Your task to perform on an android device: Open eBay Image 0: 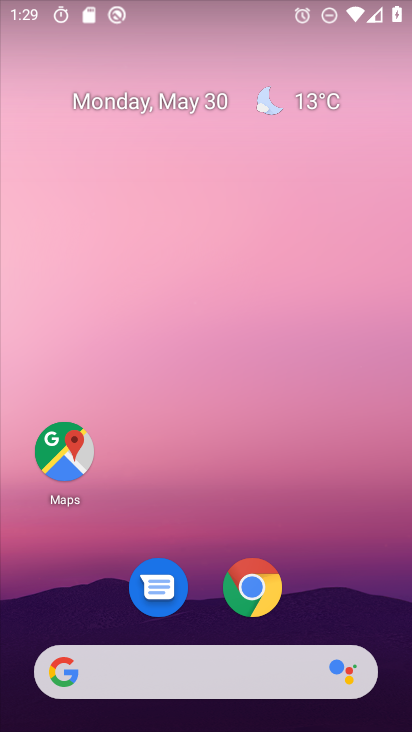
Step 0: drag from (344, 580) to (326, 106)
Your task to perform on an android device: Open eBay Image 1: 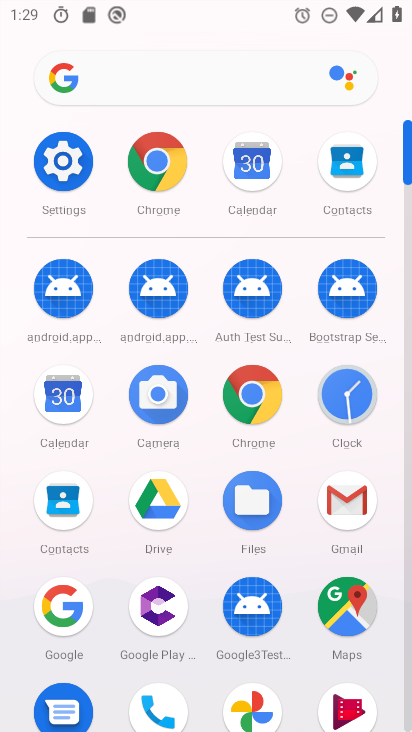
Step 1: click (150, 159)
Your task to perform on an android device: Open eBay Image 2: 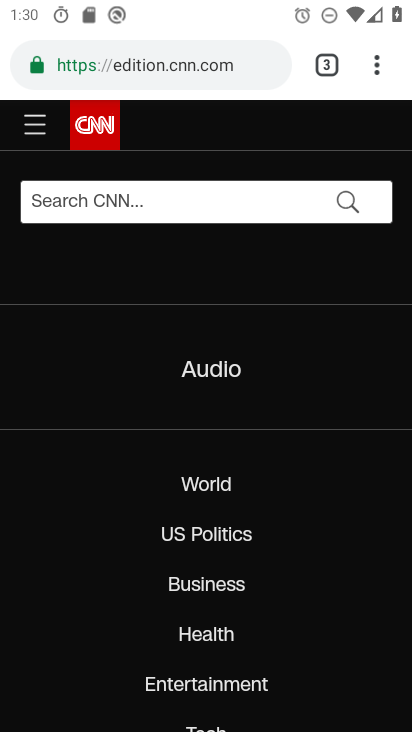
Step 2: click (157, 64)
Your task to perform on an android device: Open eBay Image 3: 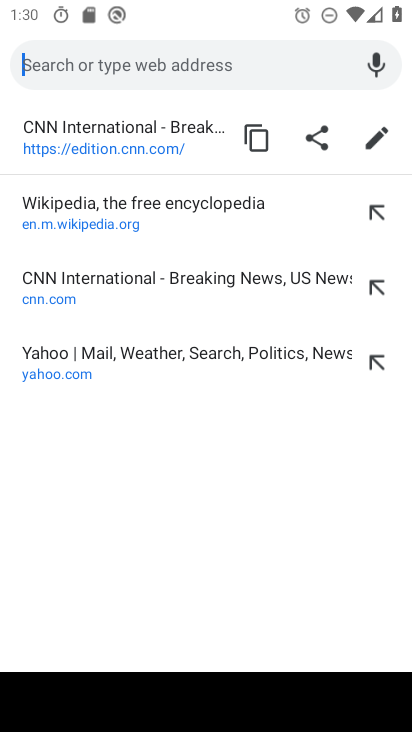
Step 3: type "ebay"
Your task to perform on an android device: Open eBay Image 4: 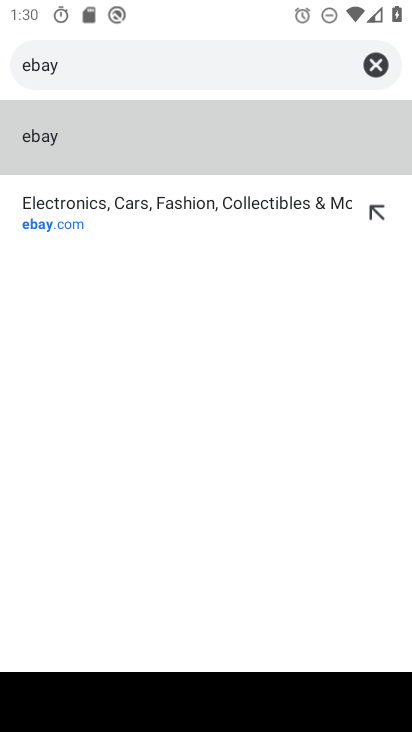
Step 4: click (50, 226)
Your task to perform on an android device: Open eBay Image 5: 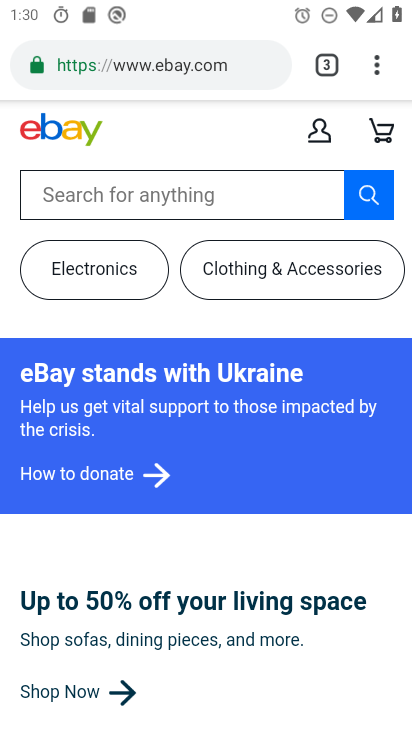
Step 5: task complete